Your task to perform on an android device: Open settings Image 0: 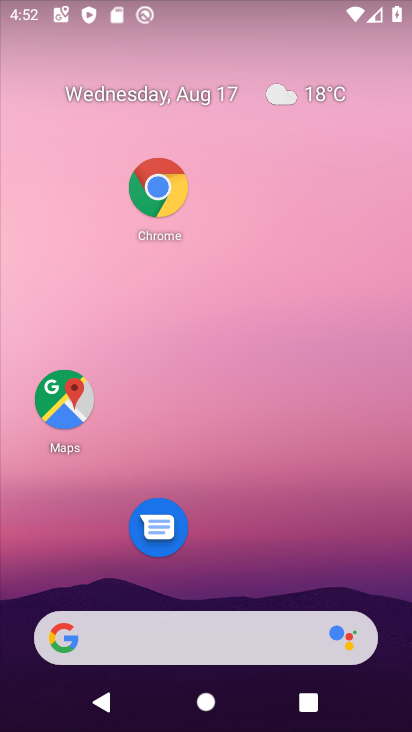
Step 0: drag from (238, 599) to (230, 69)
Your task to perform on an android device: Open settings Image 1: 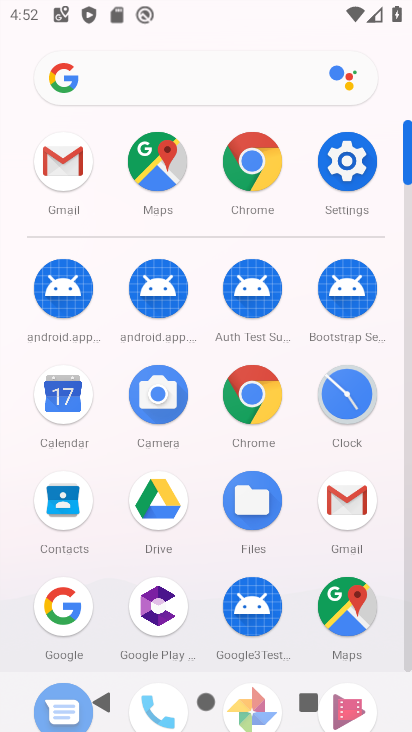
Step 1: click (348, 166)
Your task to perform on an android device: Open settings Image 2: 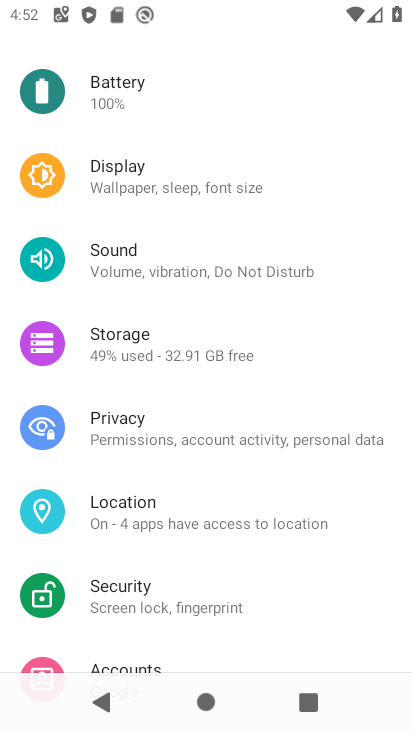
Step 2: task complete